Your task to perform on an android device: Go to Google Image 0: 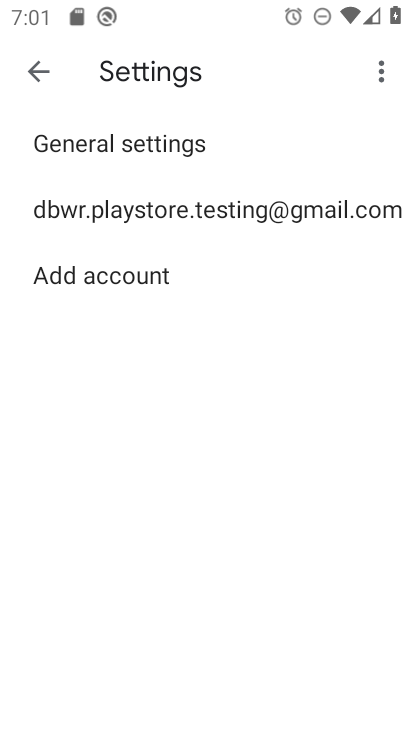
Step 0: press home button
Your task to perform on an android device: Go to Google Image 1: 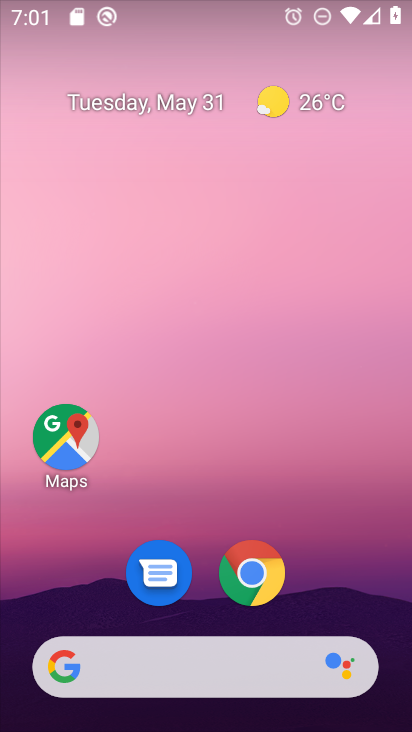
Step 1: drag from (398, 651) to (310, 103)
Your task to perform on an android device: Go to Google Image 2: 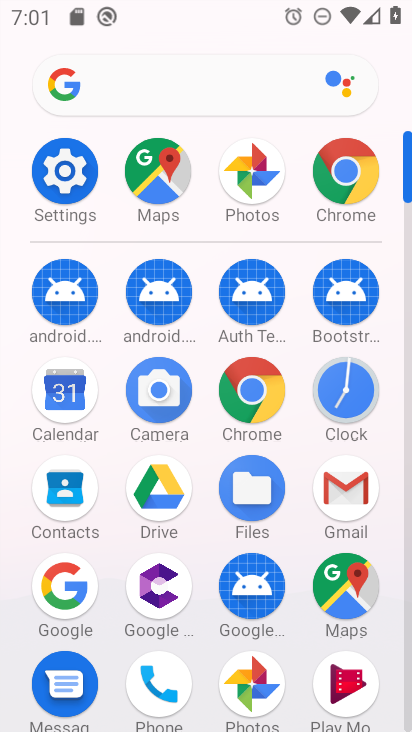
Step 2: click (75, 587)
Your task to perform on an android device: Go to Google Image 3: 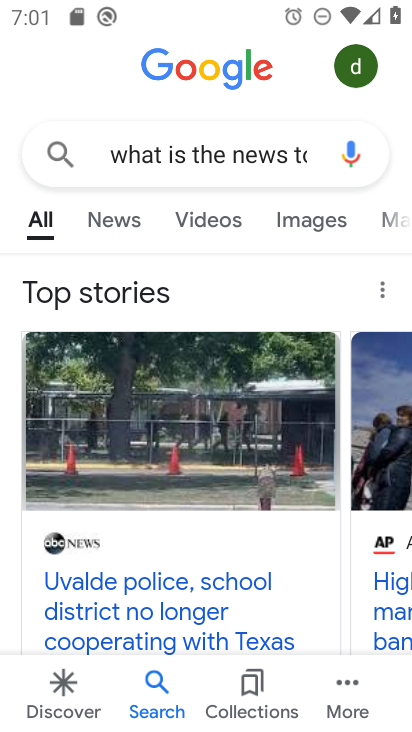
Step 3: task complete